Your task to perform on an android device: Open settings on Google Maps Image 0: 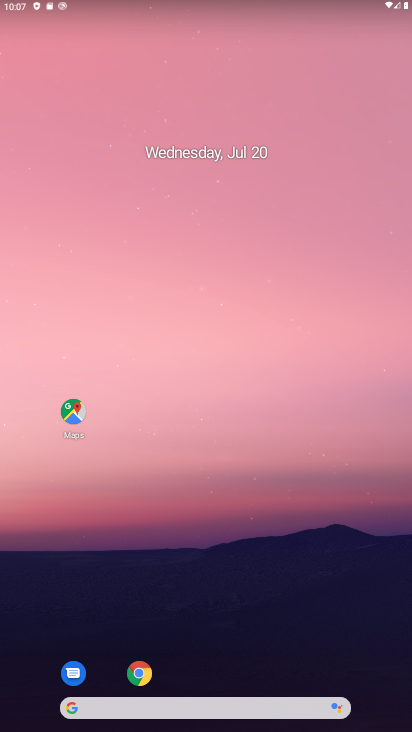
Step 0: drag from (273, 669) to (239, 27)
Your task to perform on an android device: Open settings on Google Maps Image 1: 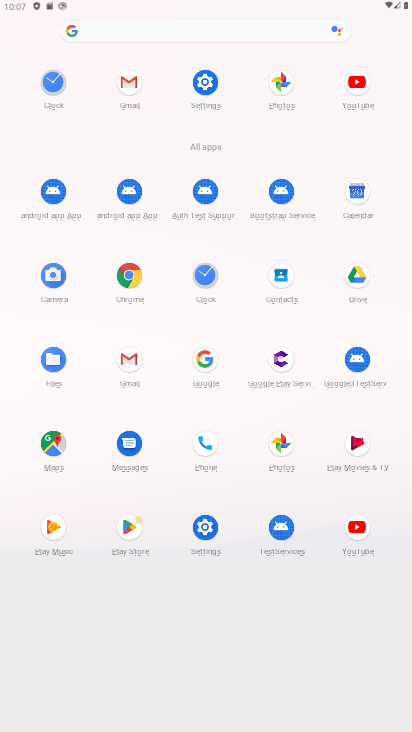
Step 1: click (49, 457)
Your task to perform on an android device: Open settings on Google Maps Image 2: 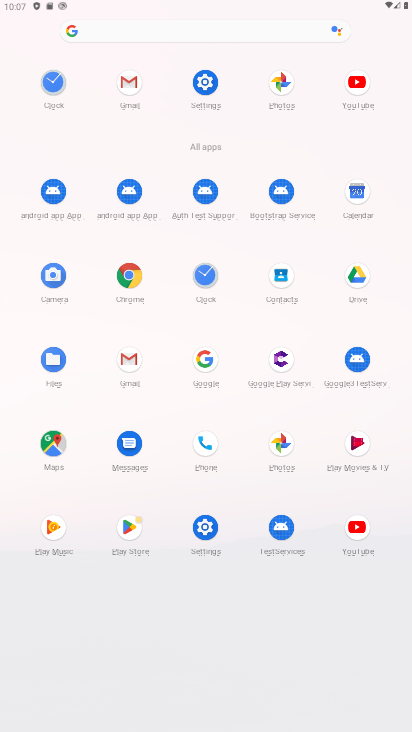
Step 2: click (50, 446)
Your task to perform on an android device: Open settings on Google Maps Image 3: 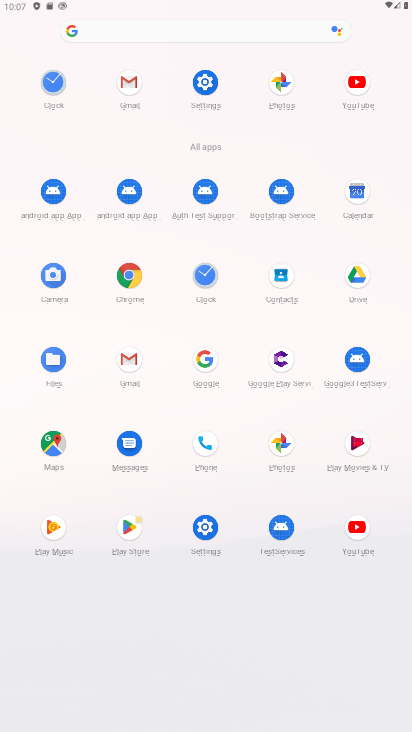
Step 3: click (50, 446)
Your task to perform on an android device: Open settings on Google Maps Image 4: 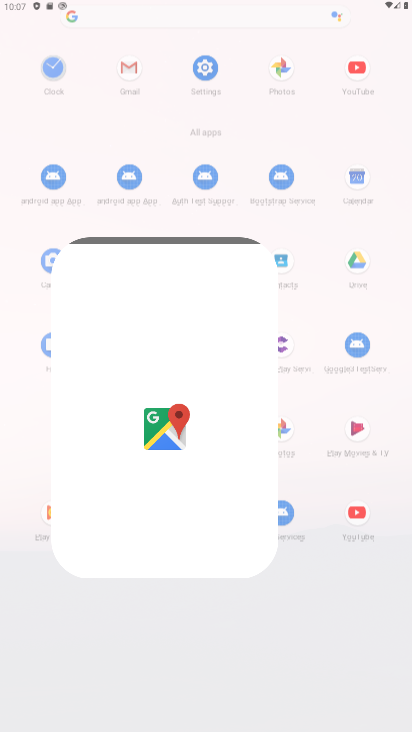
Step 4: click (56, 445)
Your task to perform on an android device: Open settings on Google Maps Image 5: 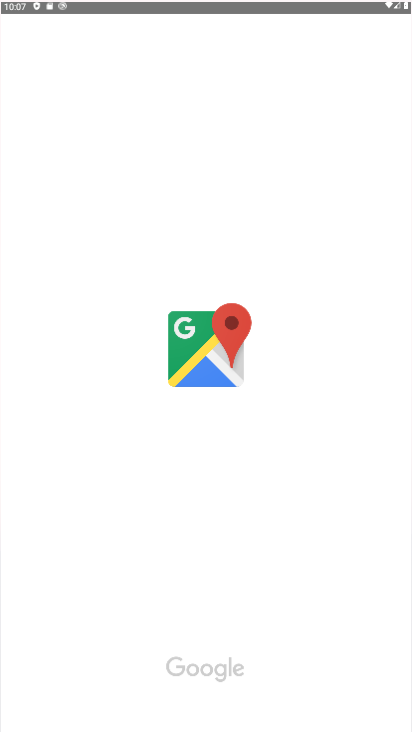
Step 5: click (57, 446)
Your task to perform on an android device: Open settings on Google Maps Image 6: 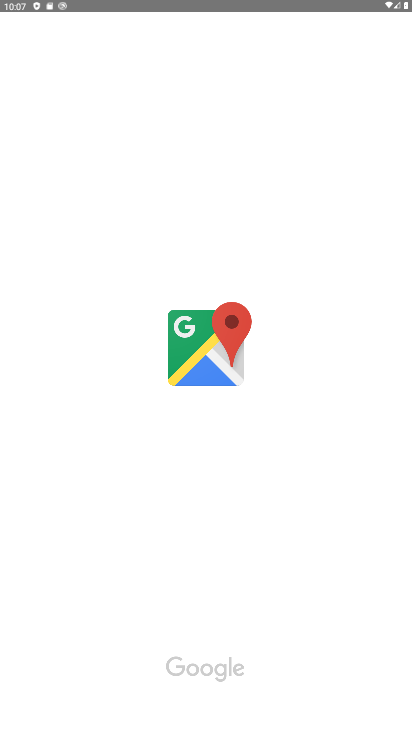
Step 6: click (57, 446)
Your task to perform on an android device: Open settings on Google Maps Image 7: 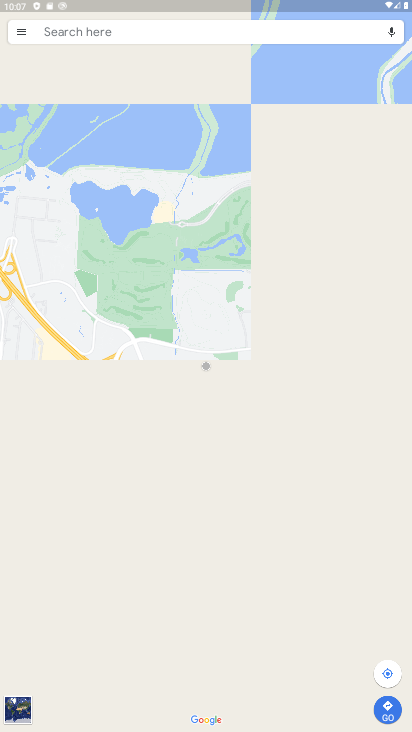
Step 7: task complete